Your task to perform on an android device: Search for "usb-b" on walmart, select the first entry, and add it to the cart. Image 0: 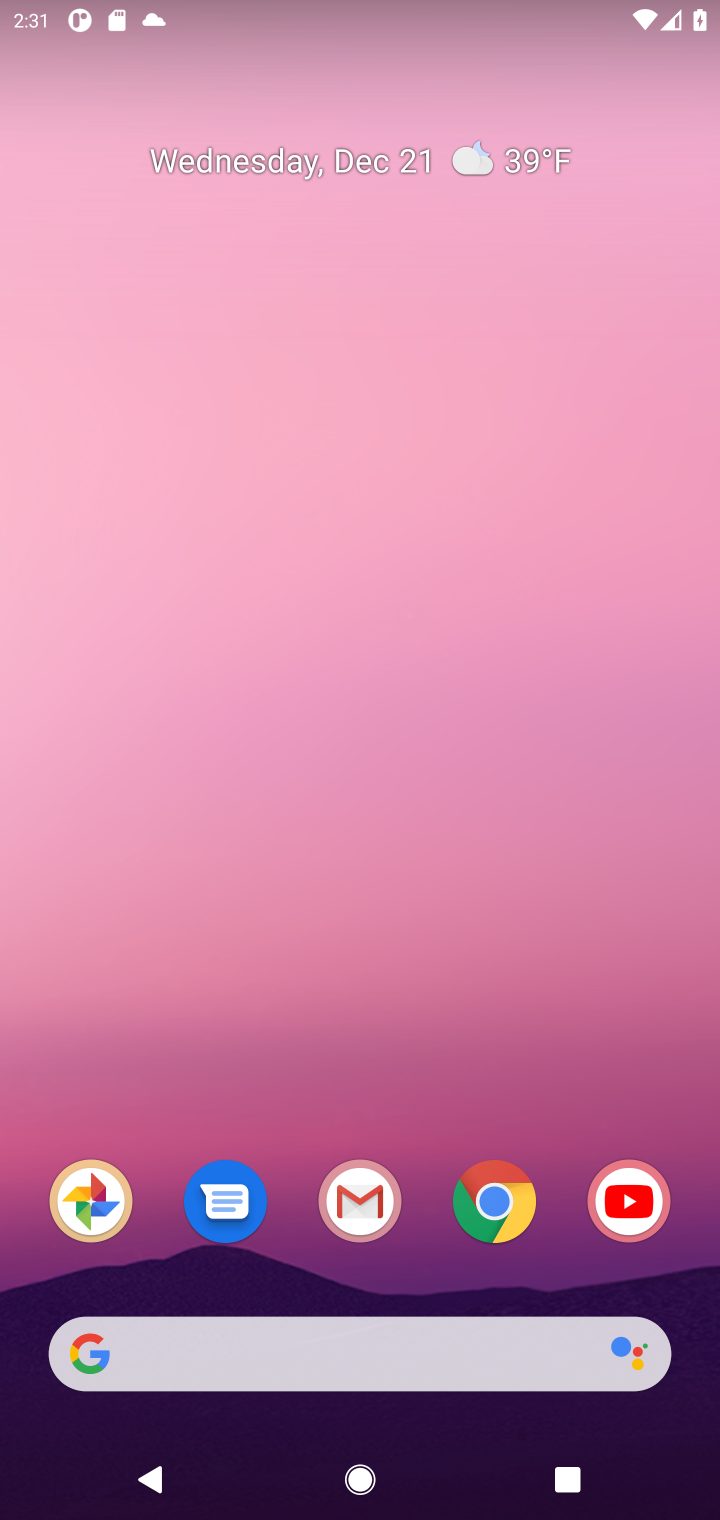
Step 0: click (492, 1214)
Your task to perform on an android device: Search for "usb-b" on walmart, select the first entry, and add it to the cart. Image 1: 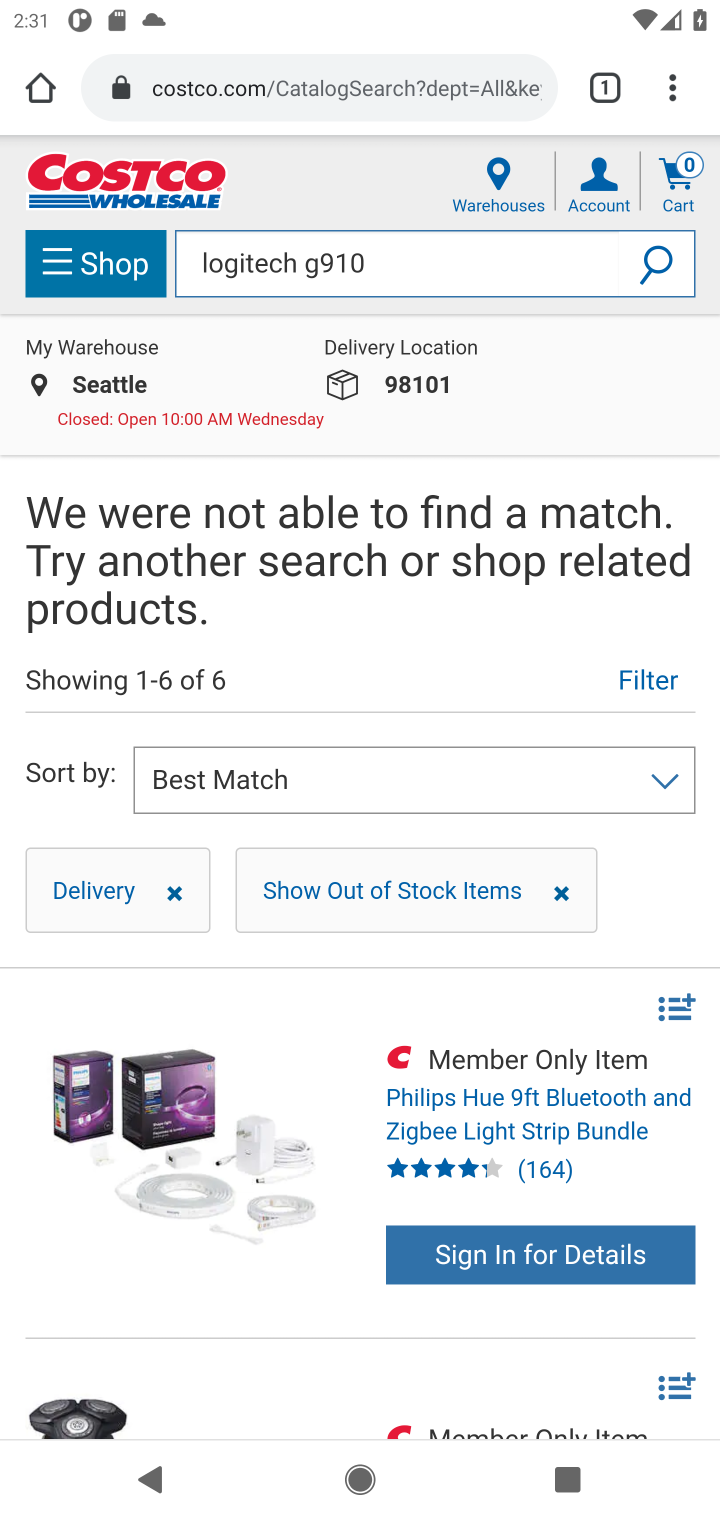
Step 1: click (294, 85)
Your task to perform on an android device: Search for "usb-b" on walmart, select the first entry, and add it to the cart. Image 2: 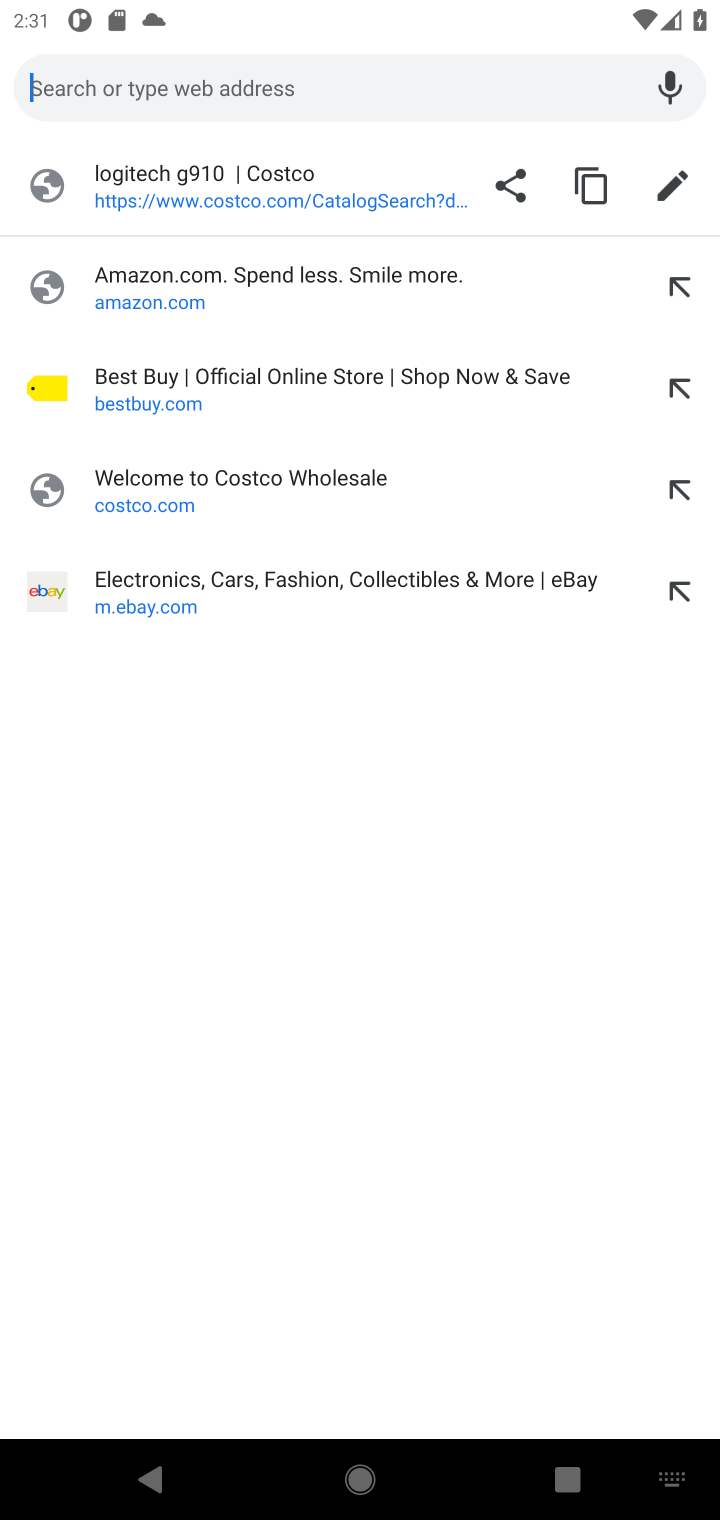
Step 2: type "walmart.com"
Your task to perform on an android device: Search for "usb-b" on walmart, select the first entry, and add it to the cart. Image 3: 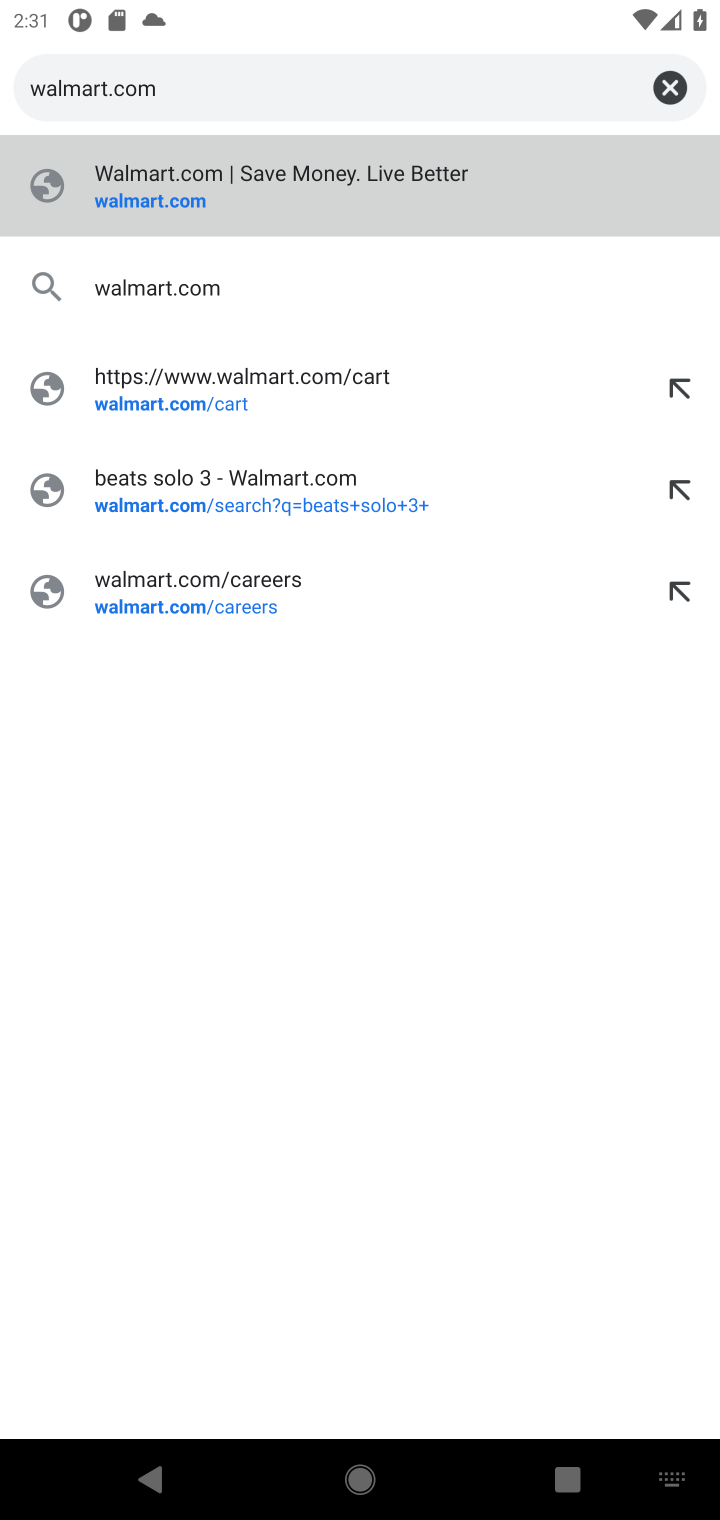
Step 3: click (145, 198)
Your task to perform on an android device: Search for "usb-b" on walmart, select the first entry, and add it to the cart. Image 4: 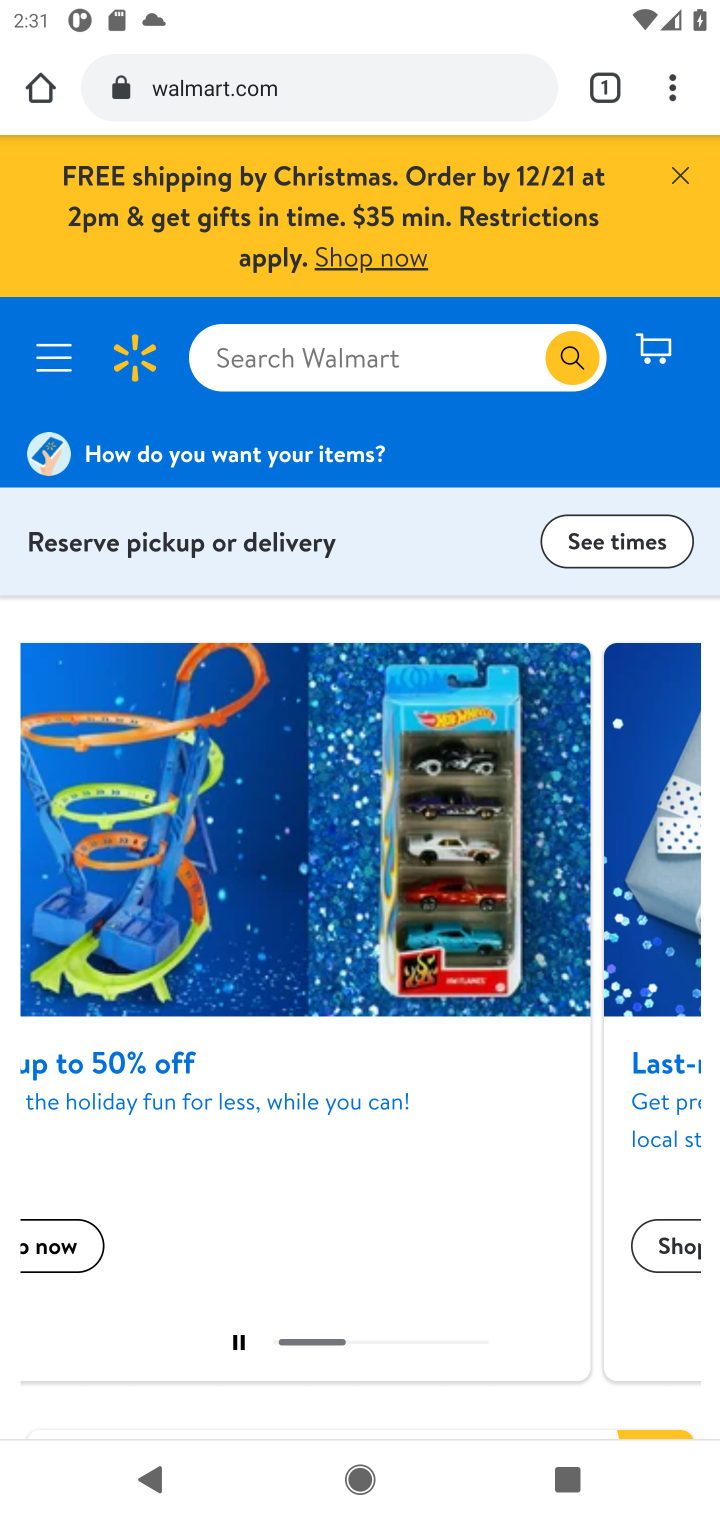
Step 4: click (281, 363)
Your task to perform on an android device: Search for "usb-b" on walmart, select the first entry, and add it to the cart. Image 5: 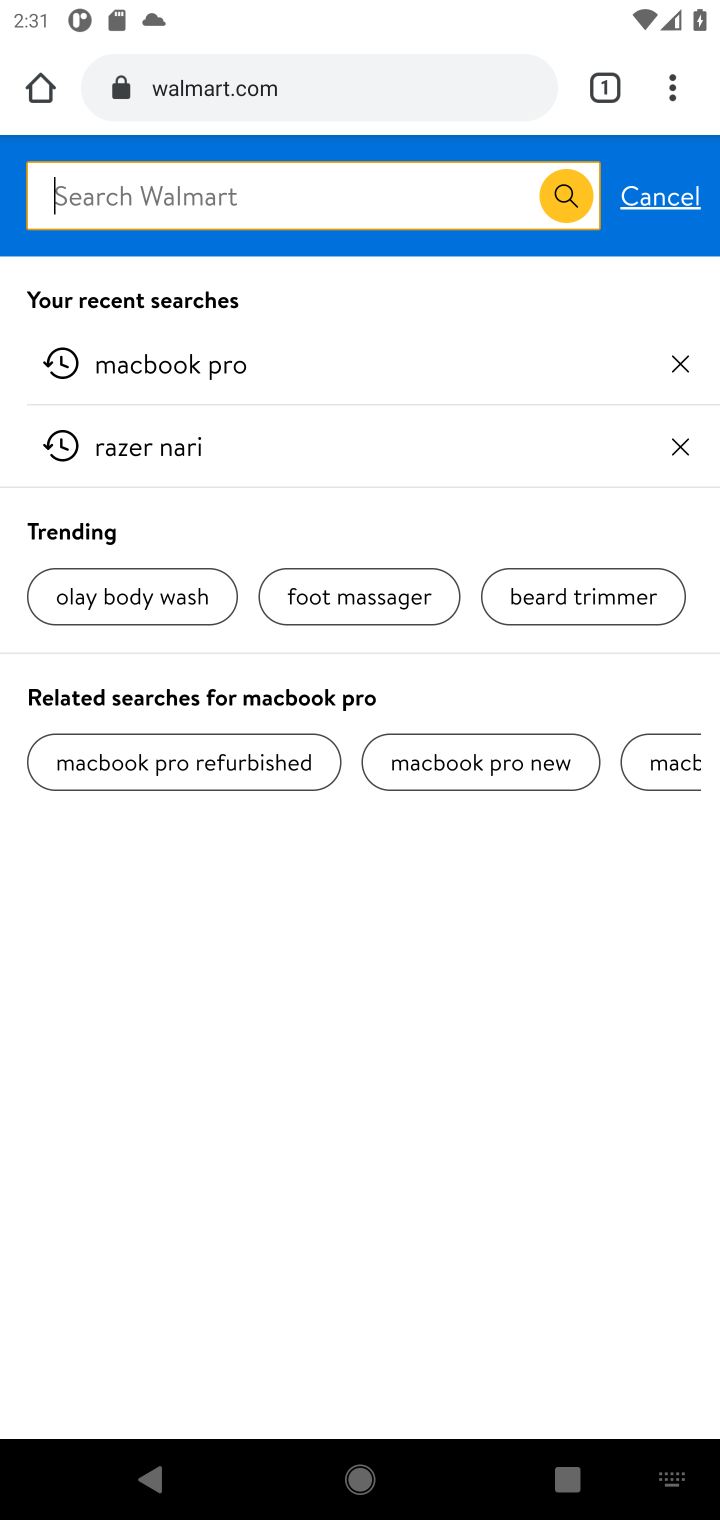
Step 5: type "usb-b"
Your task to perform on an android device: Search for "usb-b" on walmart, select the first entry, and add it to the cart. Image 6: 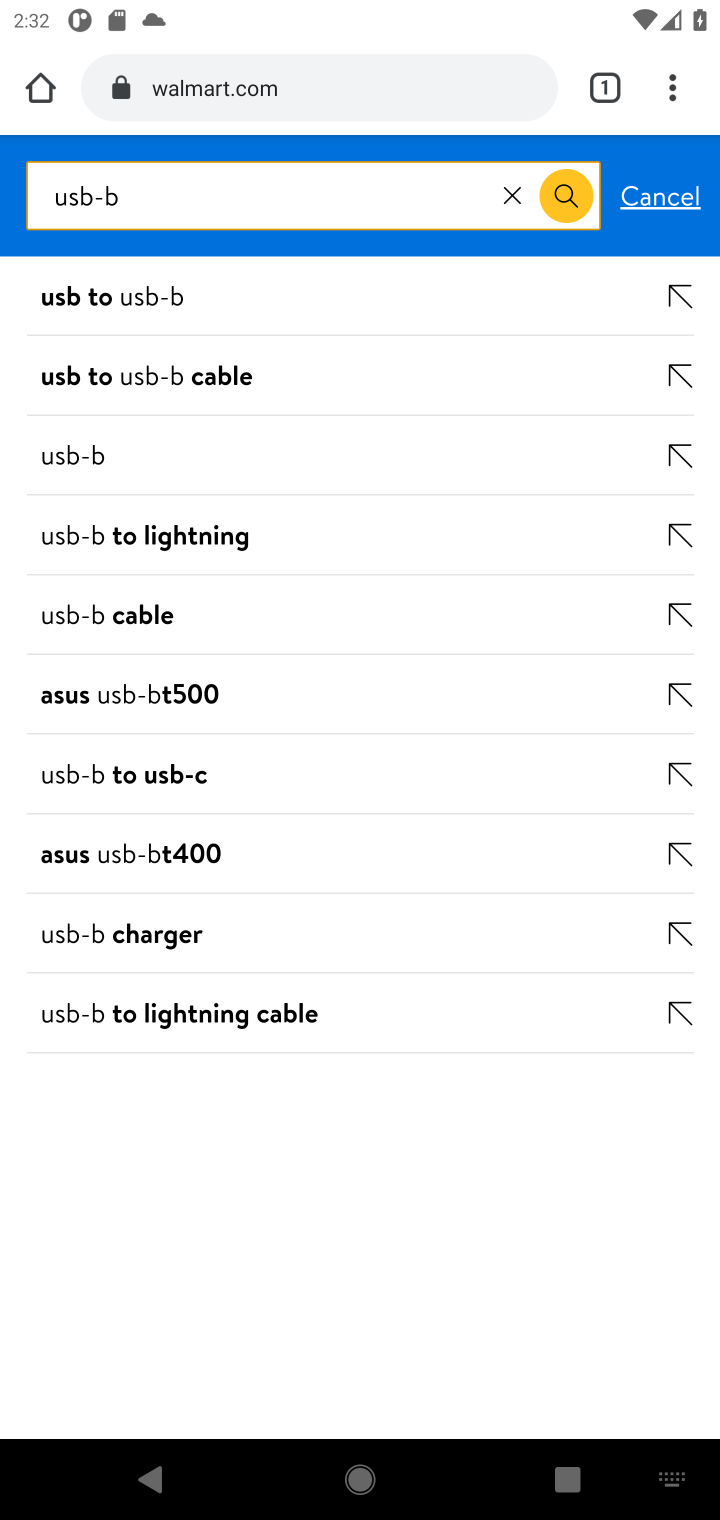
Step 6: click (45, 462)
Your task to perform on an android device: Search for "usb-b" on walmart, select the first entry, and add it to the cart. Image 7: 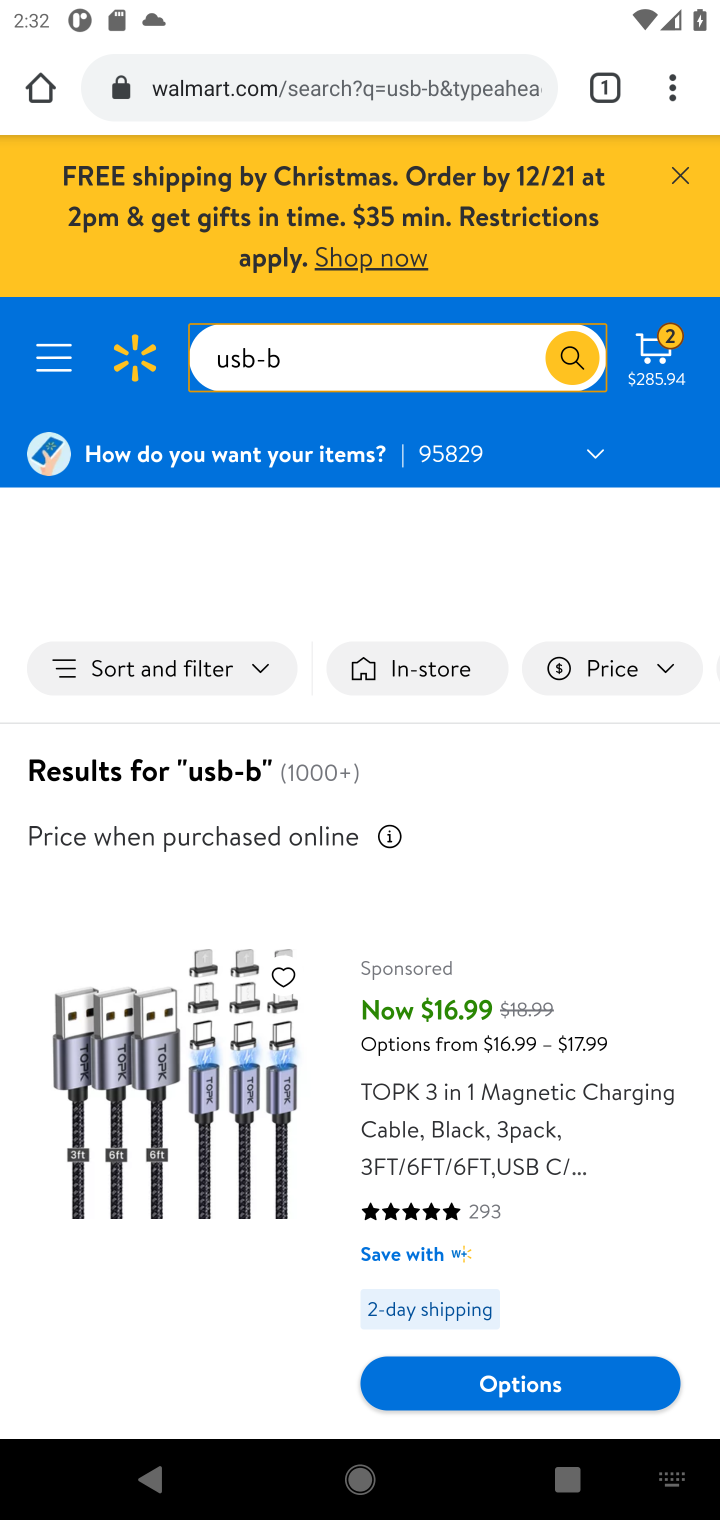
Step 7: drag from (259, 1131) to (298, 874)
Your task to perform on an android device: Search for "usb-b" on walmart, select the first entry, and add it to the cart. Image 8: 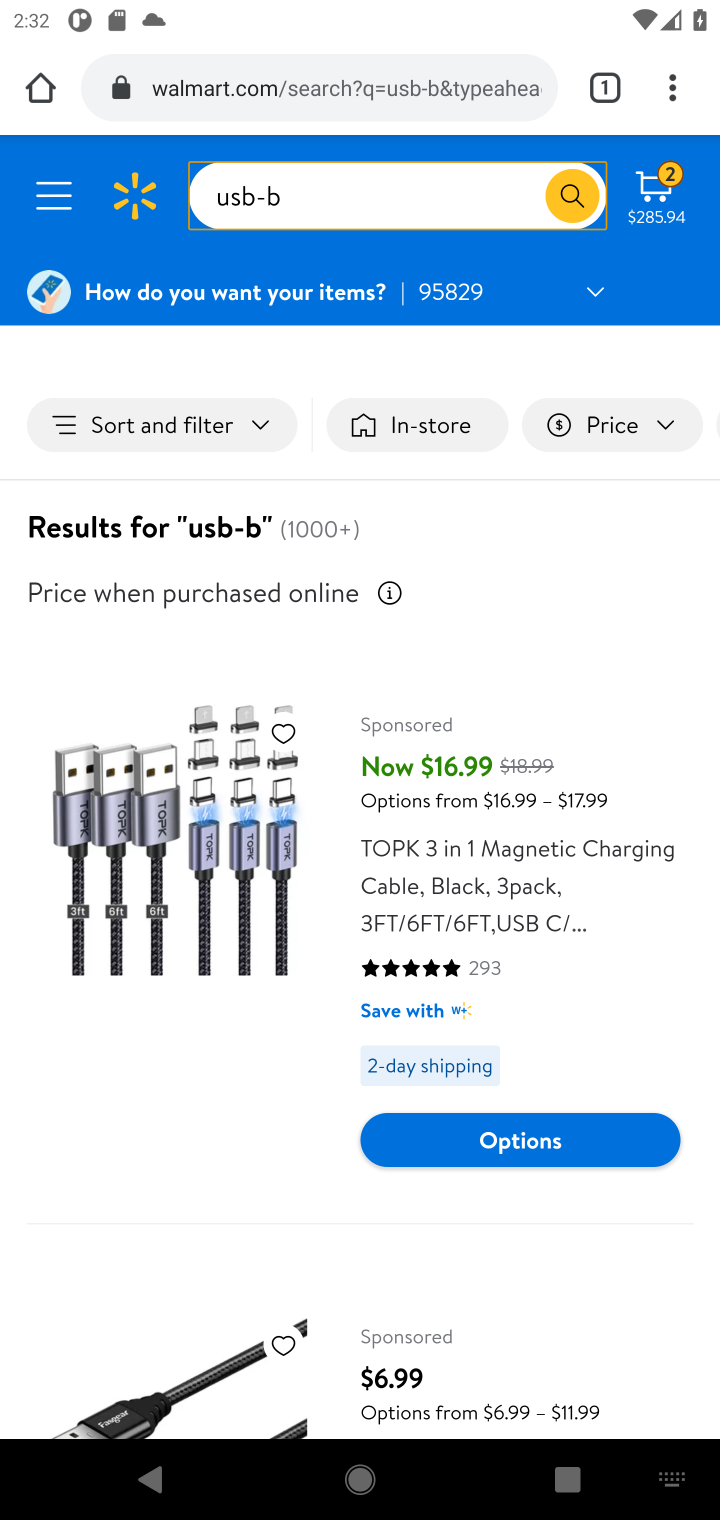
Step 8: click (453, 864)
Your task to perform on an android device: Search for "usb-b" on walmart, select the first entry, and add it to the cart. Image 9: 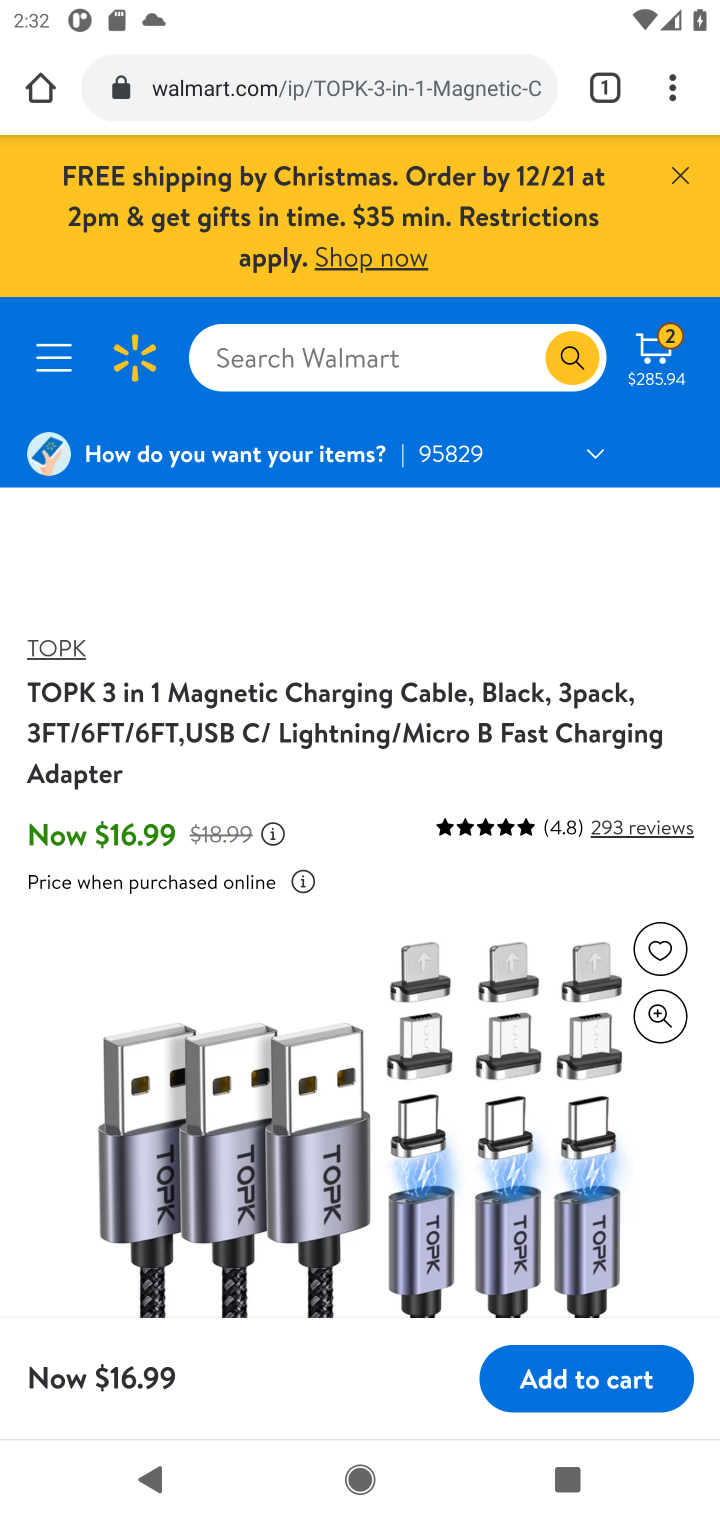
Step 9: task complete